Your task to perform on an android device: search for starred emails in the gmail app Image 0: 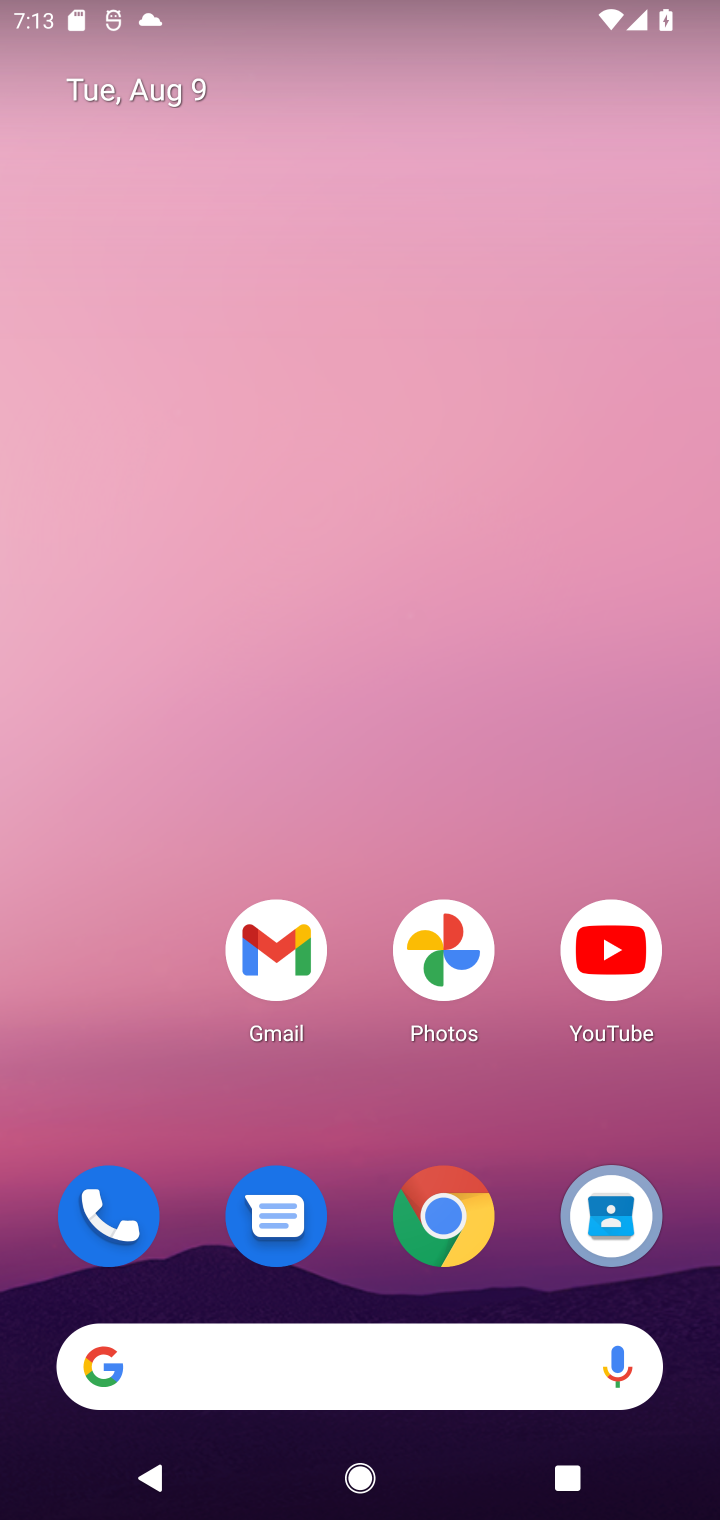
Step 0: click (267, 938)
Your task to perform on an android device: search for starred emails in the gmail app Image 1: 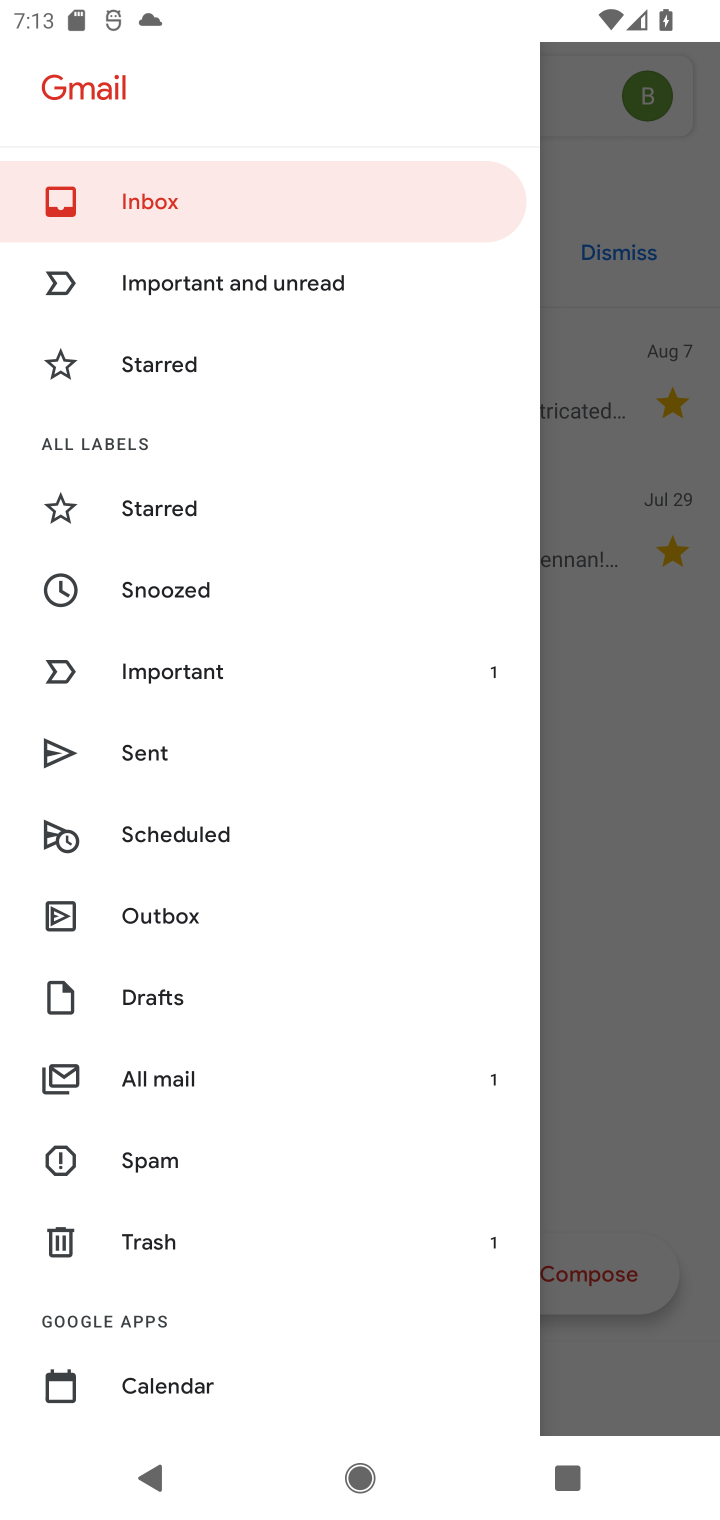
Step 1: click (157, 1069)
Your task to perform on an android device: search for starred emails in the gmail app Image 2: 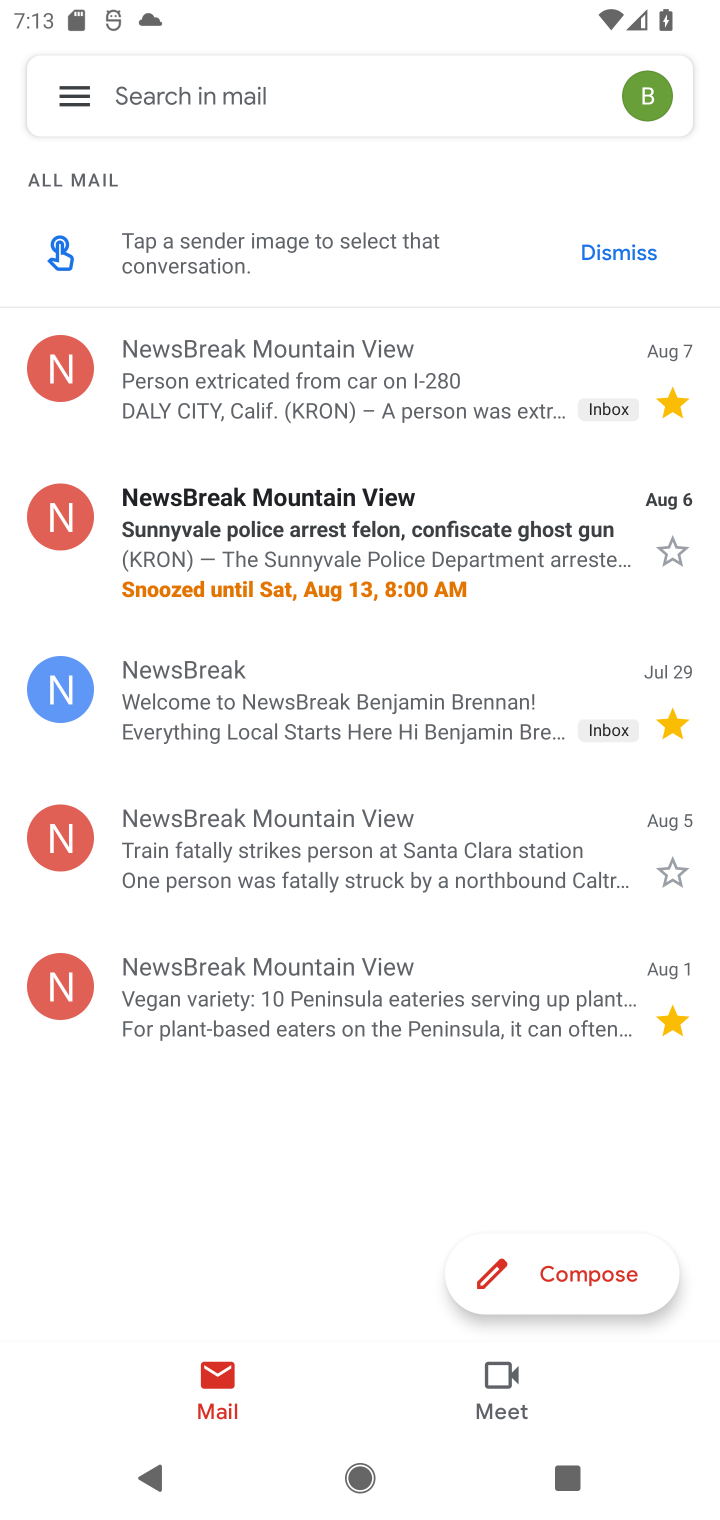
Step 2: click (59, 81)
Your task to perform on an android device: search for starred emails in the gmail app Image 3: 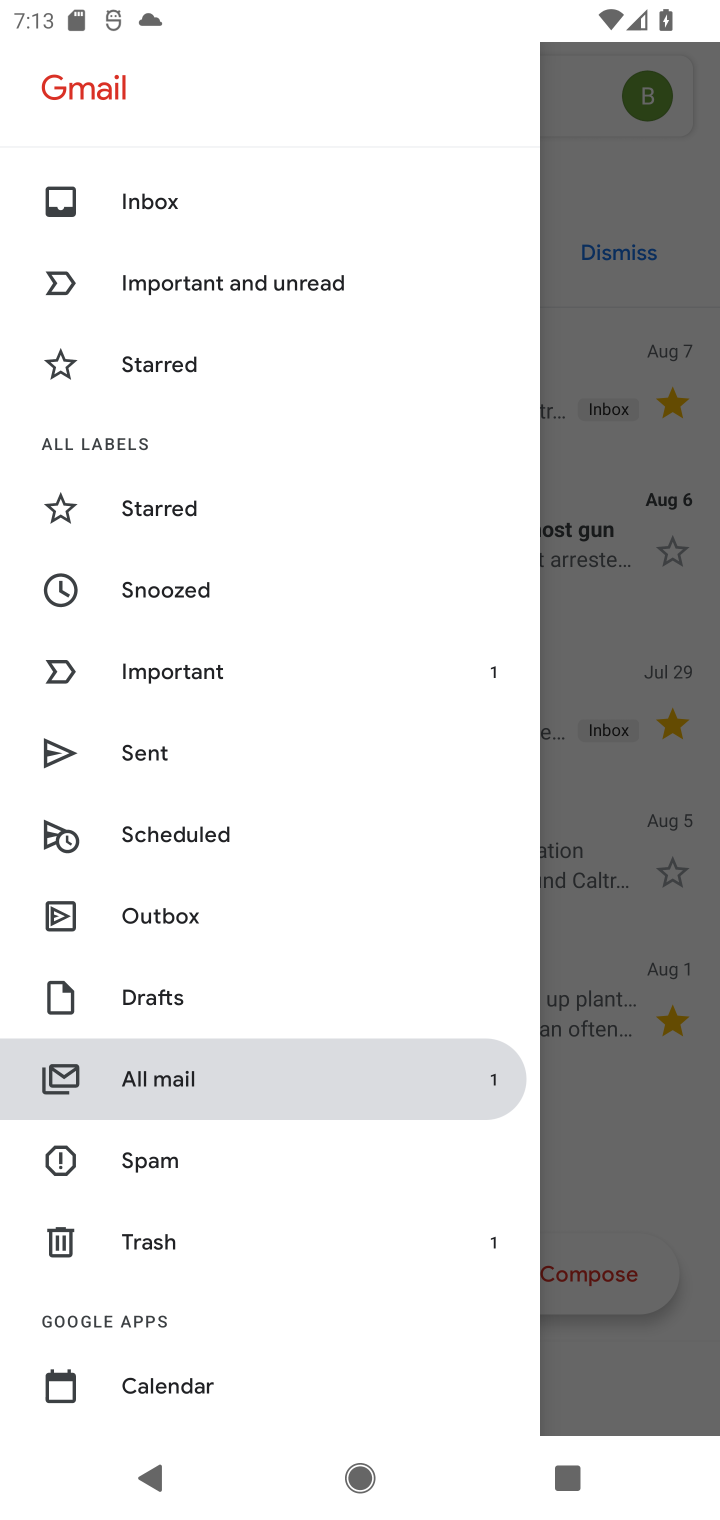
Step 3: click (156, 484)
Your task to perform on an android device: search for starred emails in the gmail app Image 4: 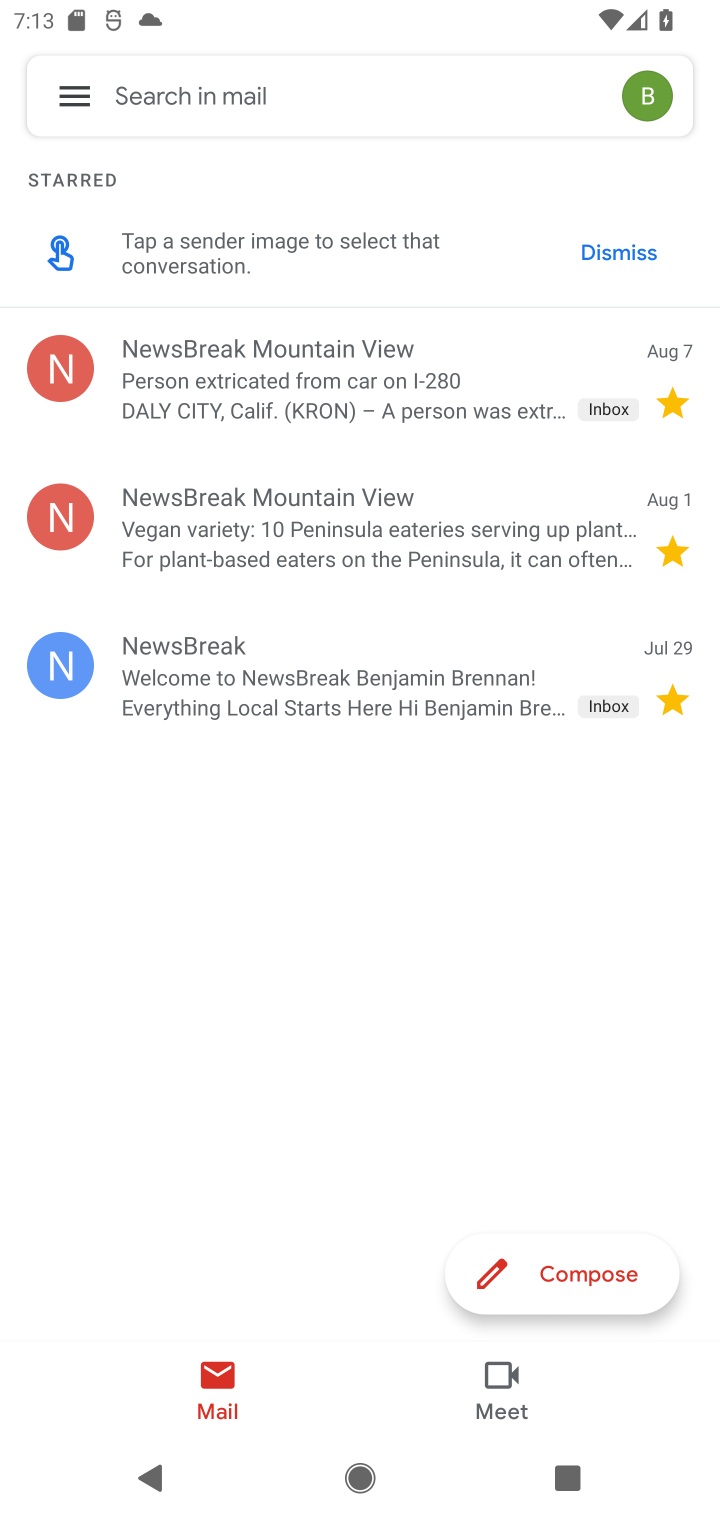
Step 4: task complete